Your task to perform on an android device: toggle improve location accuracy Image 0: 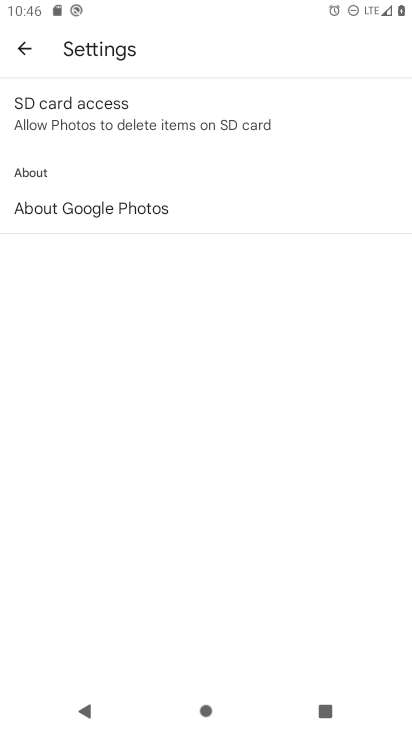
Step 0: press home button
Your task to perform on an android device: toggle improve location accuracy Image 1: 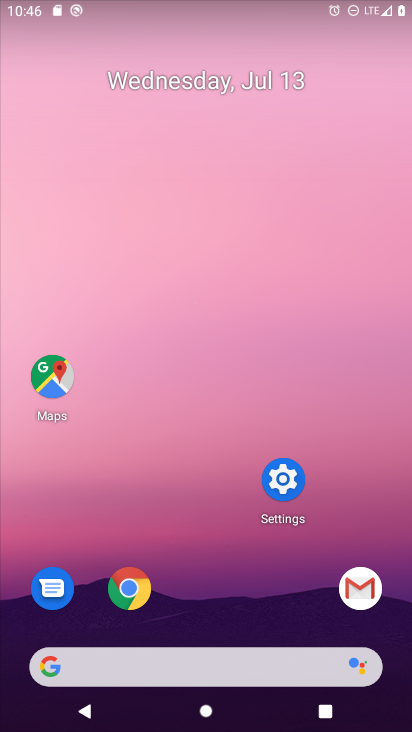
Step 1: click (266, 488)
Your task to perform on an android device: toggle improve location accuracy Image 2: 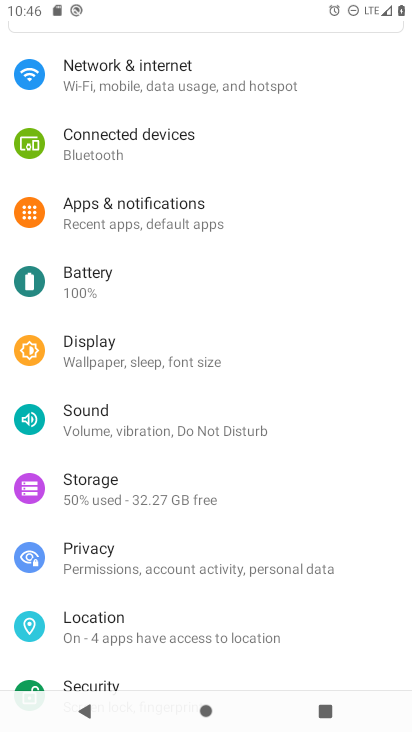
Step 2: click (120, 613)
Your task to perform on an android device: toggle improve location accuracy Image 3: 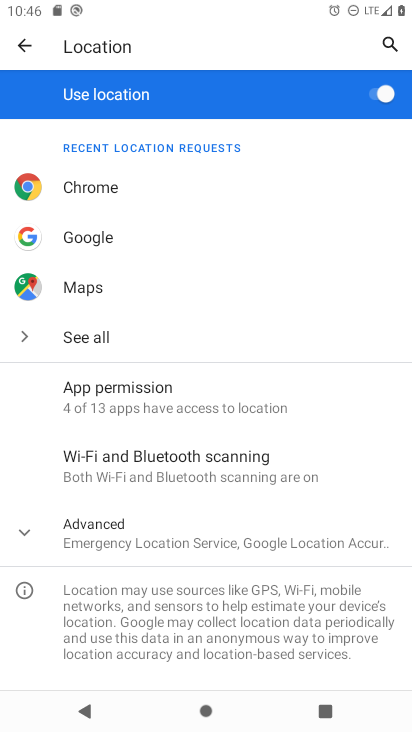
Step 3: click (59, 542)
Your task to perform on an android device: toggle improve location accuracy Image 4: 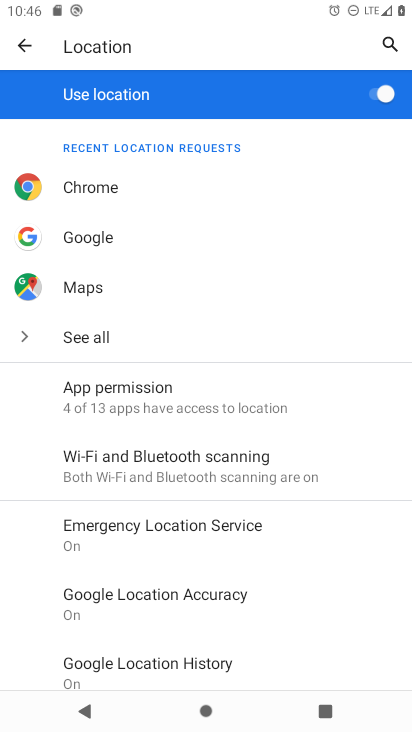
Step 4: click (126, 592)
Your task to perform on an android device: toggle improve location accuracy Image 5: 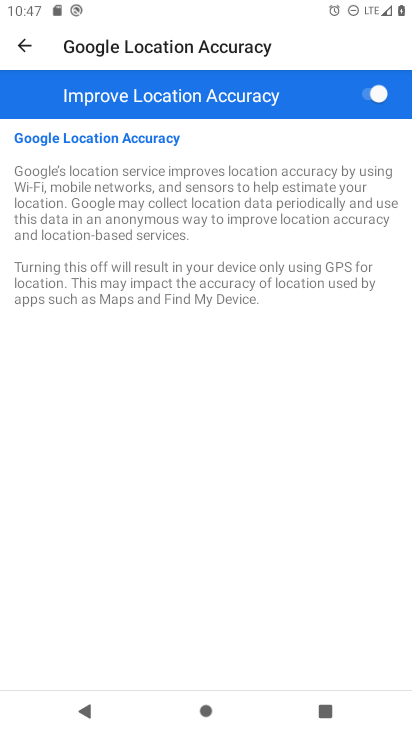
Step 5: task complete